Your task to perform on an android device: make emails show in primary in the gmail app Image 0: 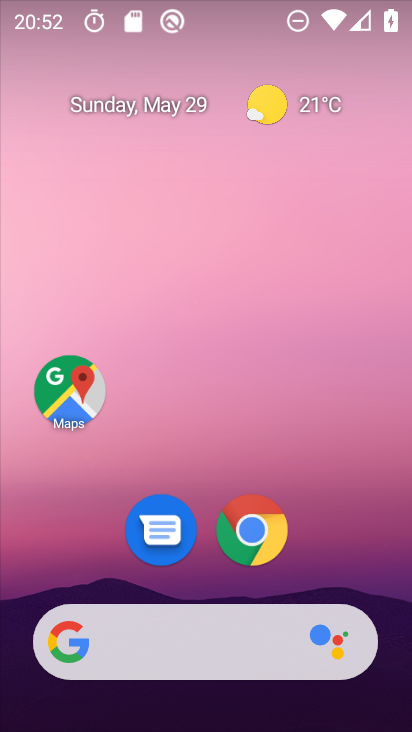
Step 0: drag from (194, 677) to (264, 59)
Your task to perform on an android device: make emails show in primary in the gmail app Image 1: 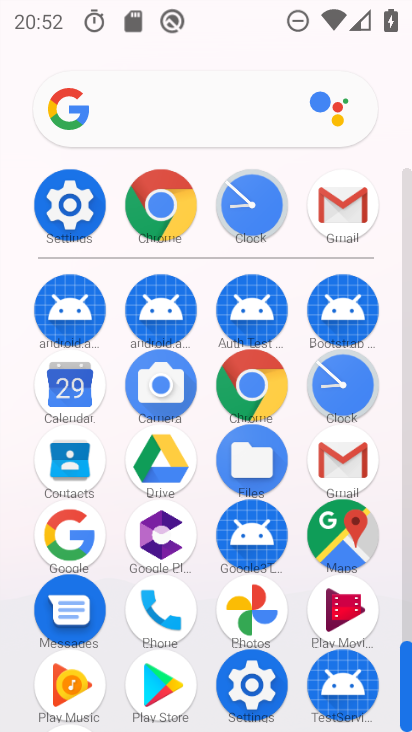
Step 1: click (335, 445)
Your task to perform on an android device: make emails show in primary in the gmail app Image 2: 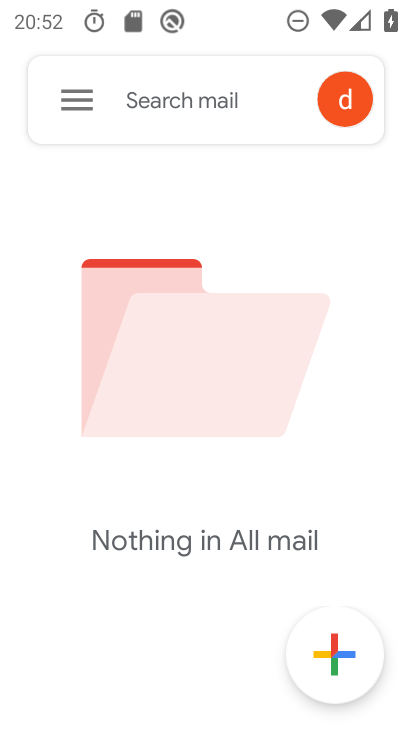
Step 2: click (92, 114)
Your task to perform on an android device: make emails show in primary in the gmail app Image 3: 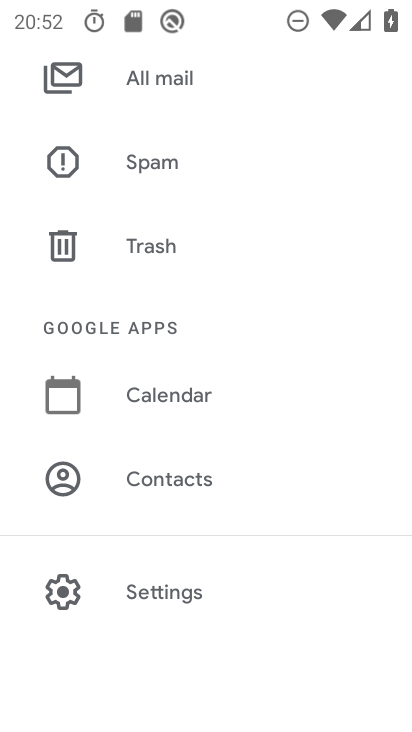
Step 3: click (153, 580)
Your task to perform on an android device: make emails show in primary in the gmail app Image 4: 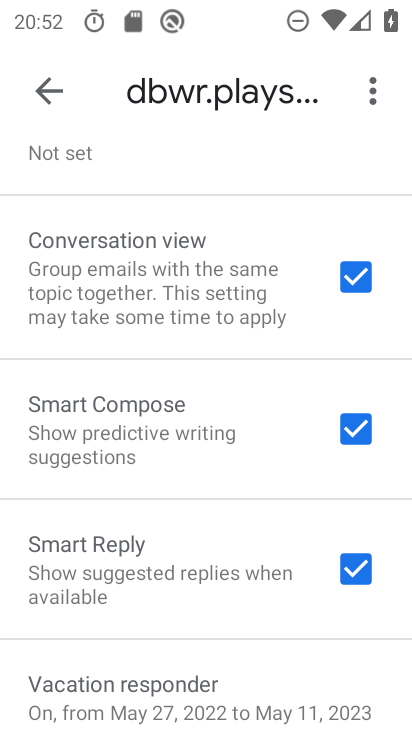
Step 4: drag from (166, 283) to (107, 584)
Your task to perform on an android device: make emails show in primary in the gmail app Image 5: 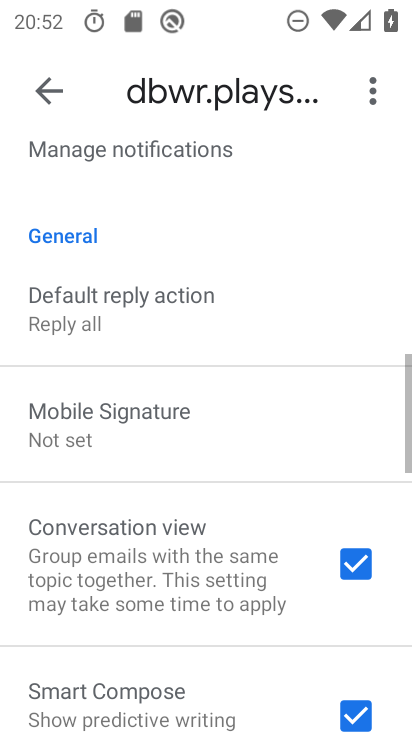
Step 5: drag from (186, 235) to (103, 447)
Your task to perform on an android device: make emails show in primary in the gmail app Image 6: 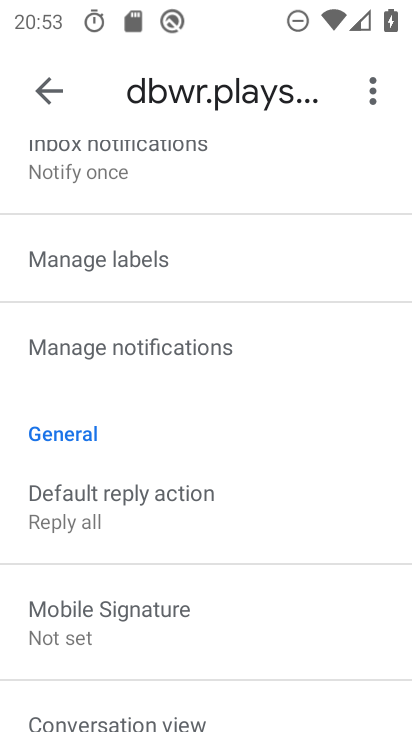
Step 6: click (110, 184)
Your task to perform on an android device: make emails show in primary in the gmail app Image 7: 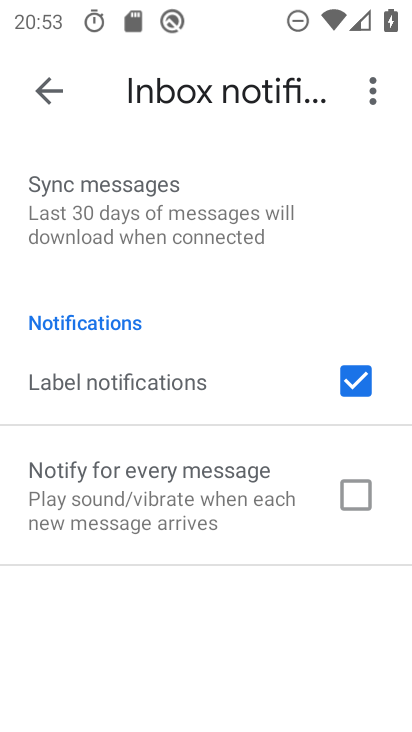
Step 7: click (35, 109)
Your task to perform on an android device: make emails show in primary in the gmail app Image 8: 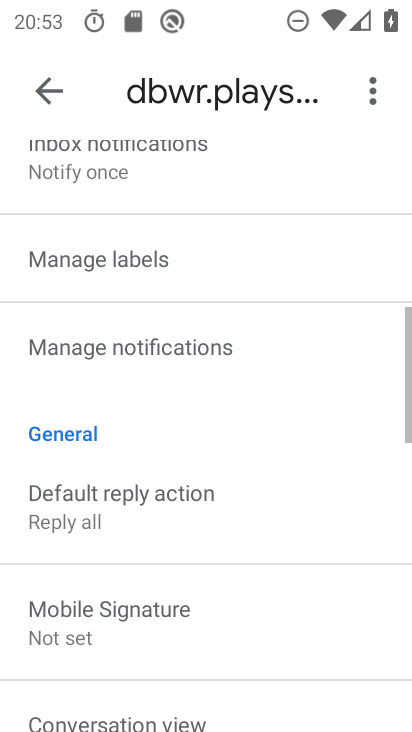
Step 8: drag from (143, 194) to (65, 514)
Your task to perform on an android device: make emails show in primary in the gmail app Image 9: 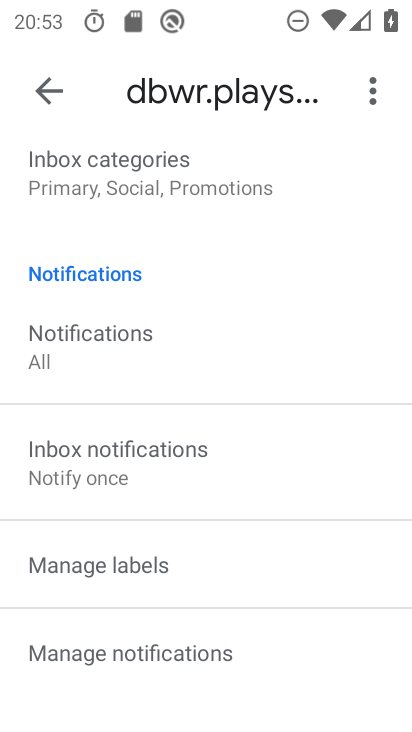
Step 9: click (170, 190)
Your task to perform on an android device: make emails show in primary in the gmail app Image 10: 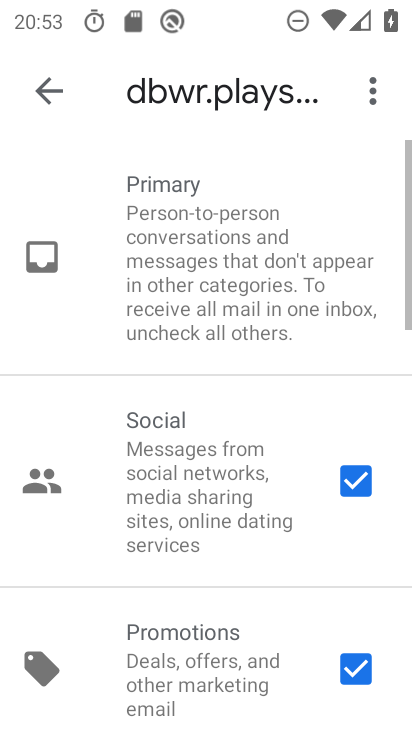
Step 10: click (224, 289)
Your task to perform on an android device: make emails show in primary in the gmail app Image 11: 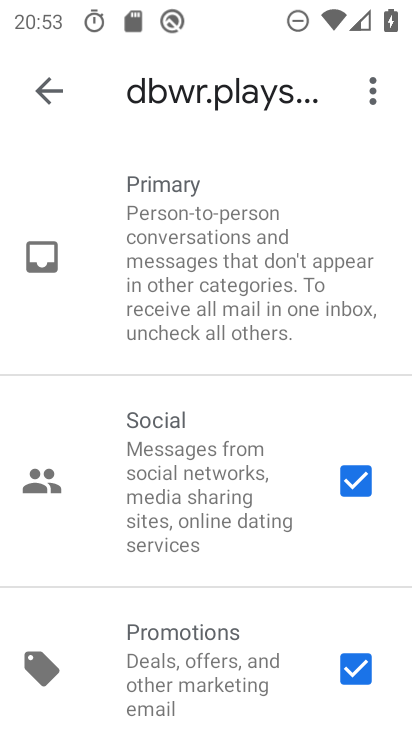
Step 11: task complete